Your task to perform on an android device: Go to battery settings Image 0: 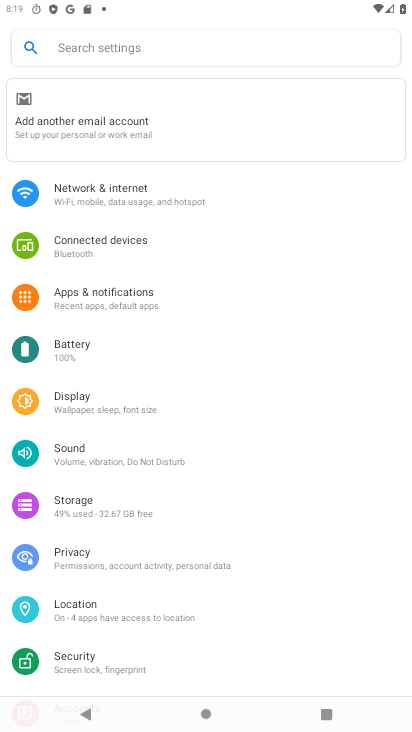
Step 0: click (87, 340)
Your task to perform on an android device: Go to battery settings Image 1: 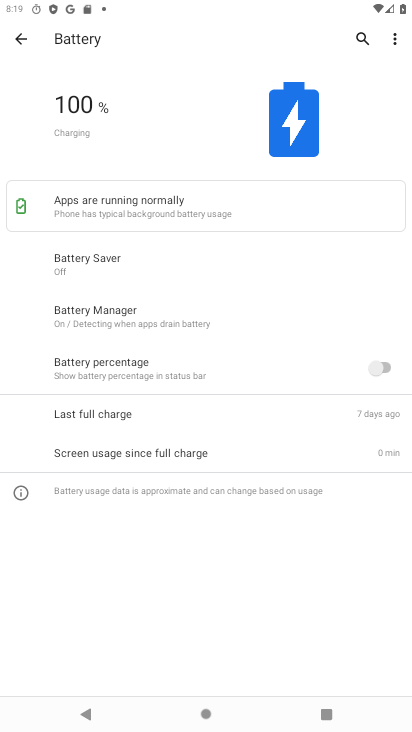
Step 1: task complete